Your task to perform on an android device: Open battery settings Image 0: 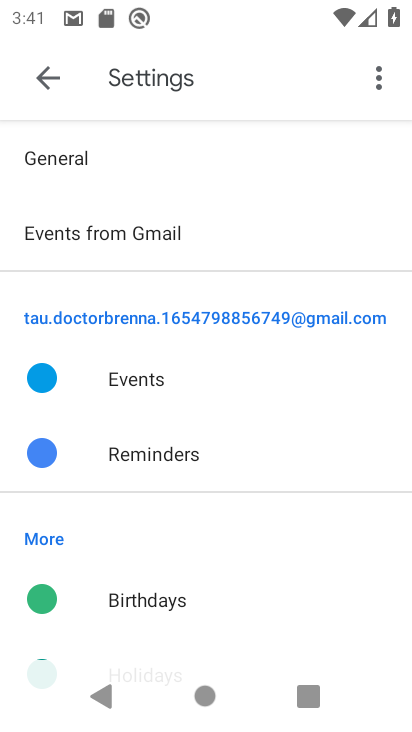
Step 0: press home button
Your task to perform on an android device: Open battery settings Image 1: 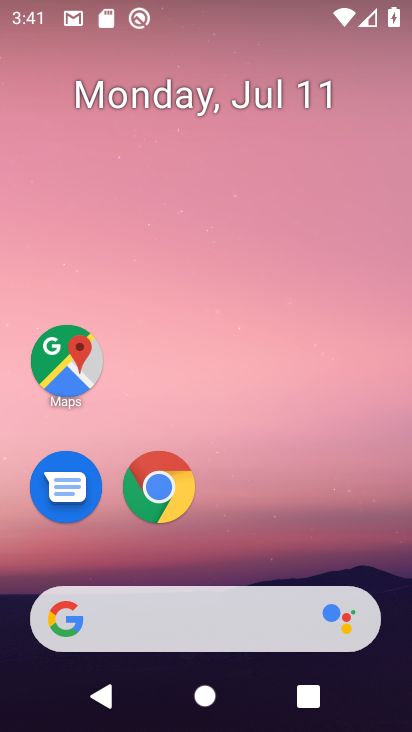
Step 1: drag from (147, 604) to (343, 11)
Your task to perform on an android device: Open battery settings Image 2: 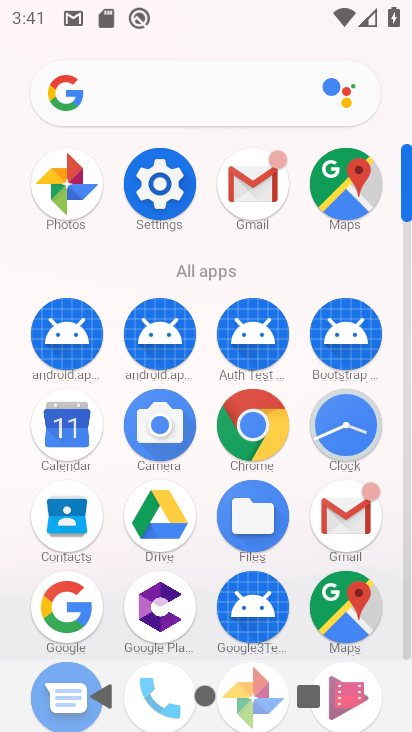
Step 2: click (182, 193)
Your task to perform on an android device: Open battery settings Image 3: 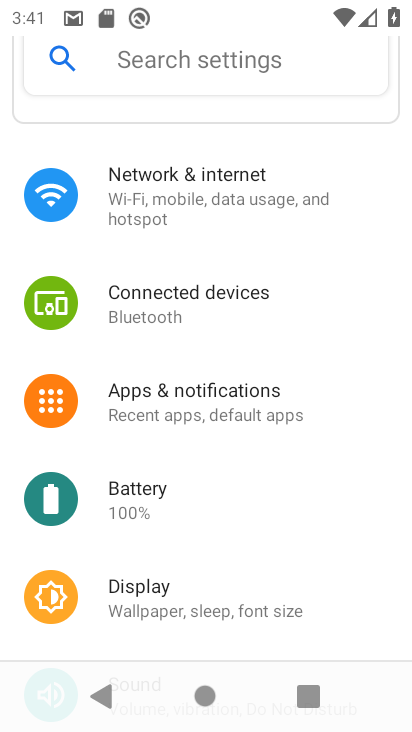
Step 3: click (150, 489)
Your task to perform on an android device: Open battery settings Image 4: 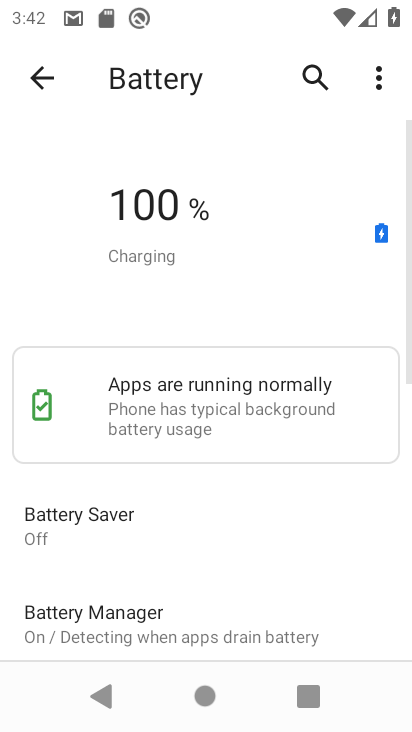
Step 4: task complete